Your task to perform on an android device: delete location history Image 0: 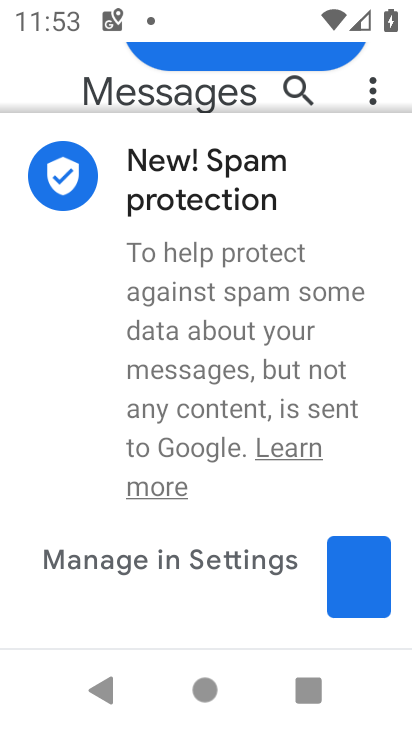
Step 0: press back button
Your task to perform on an android device: delete location history Image 1: 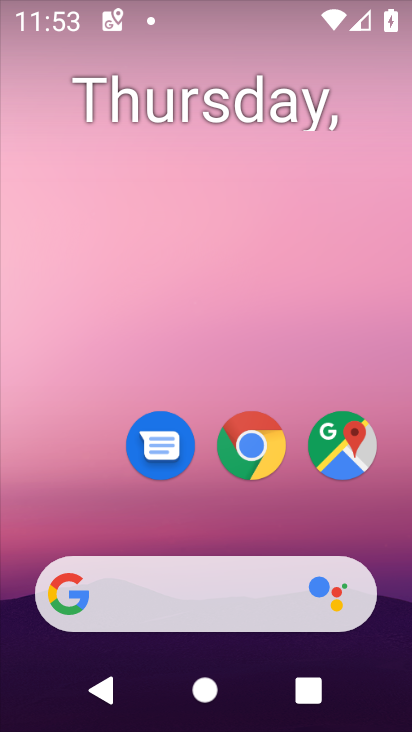
Step 1: drag from (241, 554) to (131, 2)
Your task to perform on an android device: delete location history Image 2: 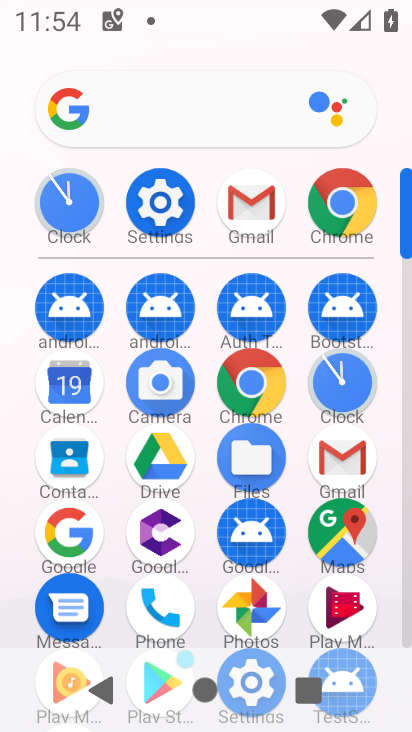
Step 2: click (337, 528)
Your task to perform on an android device: delete location history Image 3: 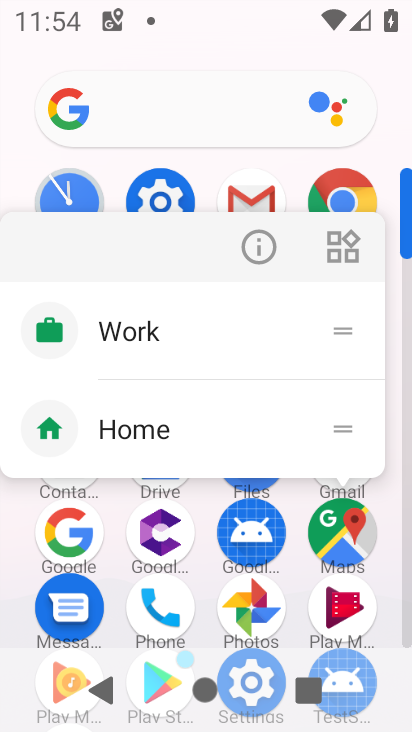
Step 3: click (334, 521)
Your task to perform on an android device: delete location history Image 4: 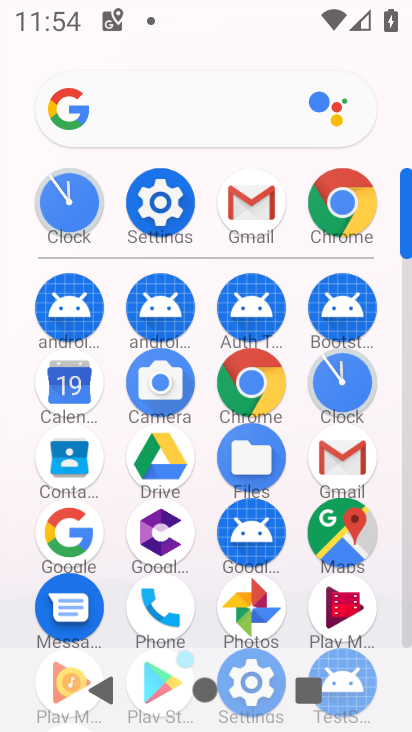
Step 4: click (332, 518)
Your task to perform on an android device: delete location history Image 5: 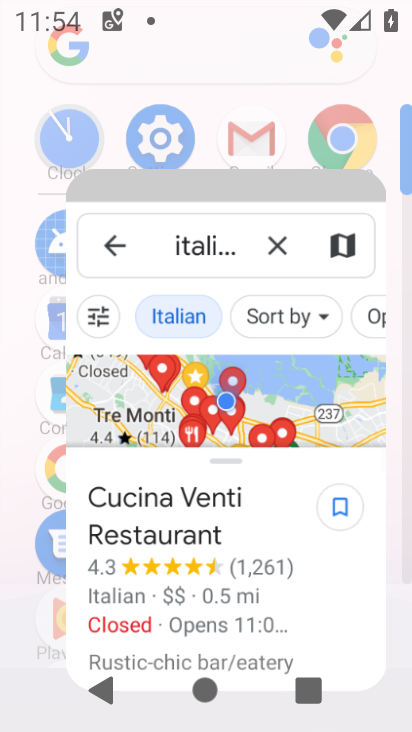
Step 5: click (332, 518)
Your task to perform on an android device: delete location history Image 6: 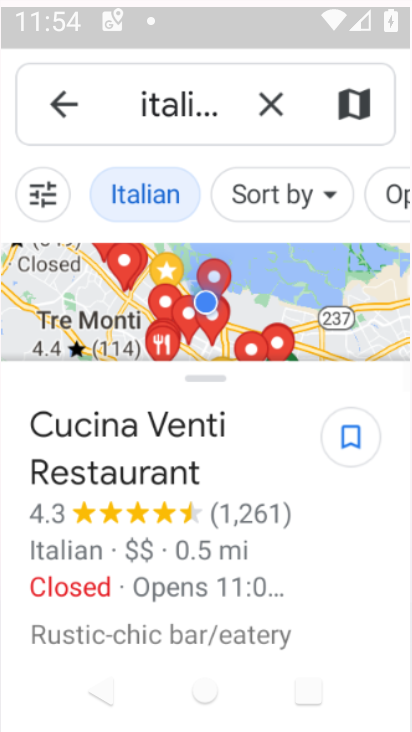
Step 6: click (332, 517)
Your task to perform on an android device: delete location history Image 7: 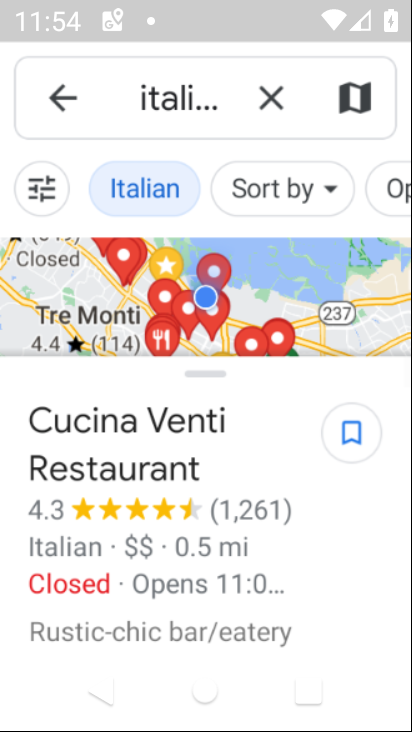
Step 7: click (326, 505)
Your task to perform on an android device: delete location history Image 8: 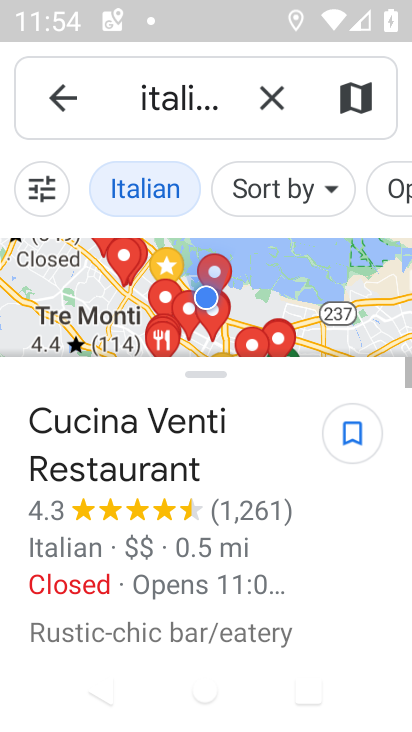
Step 8: click (60, 105)
Your task to perform on an android device: delete location history Image 9: 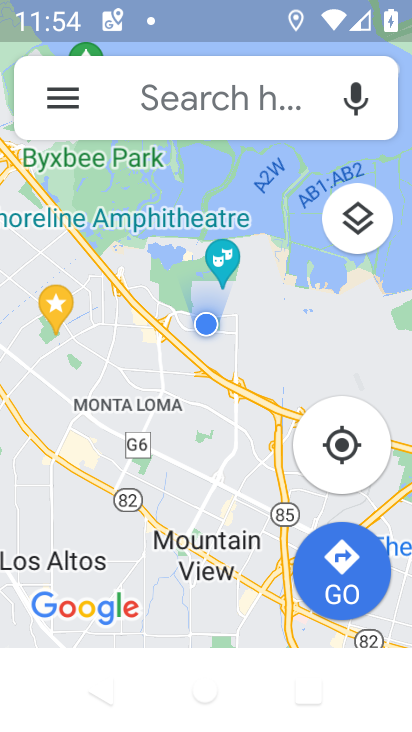
Step 9: click (60, 98)
Your task to perform on an android device: delete location history Image 10: 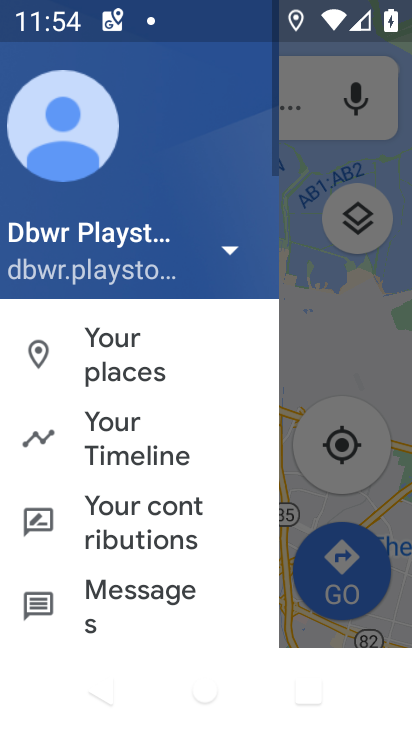
Step 10: click (60, 98)
Your task to perform on an android device: delete location history Image 11: 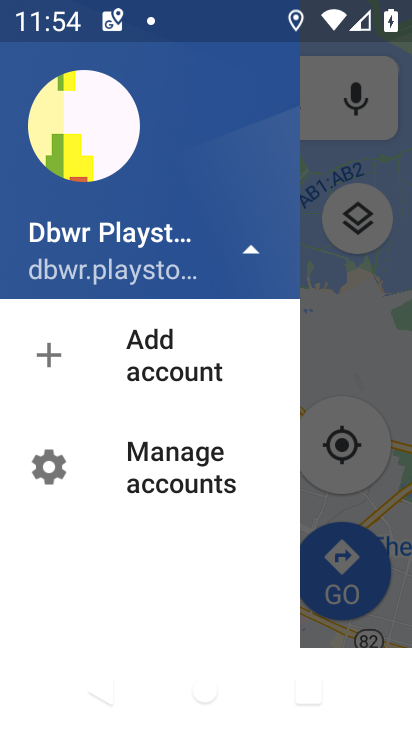
Step 11: click (246, 253)
Your task to perform on an android device: delete location history Image 12: 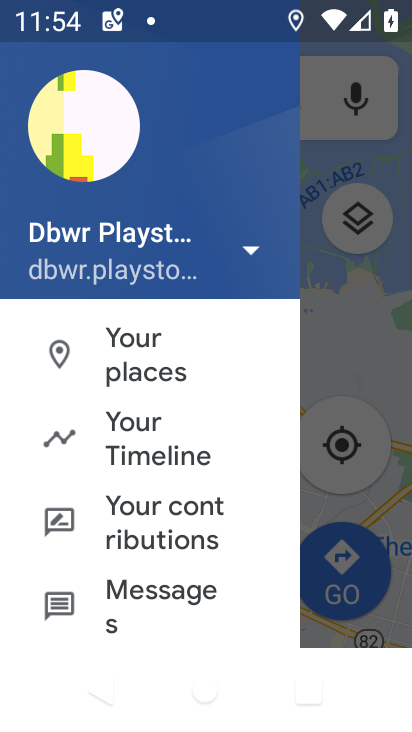
Step 12: click (154, 365)
Your task to perform on an android device: delete location history Image 13: 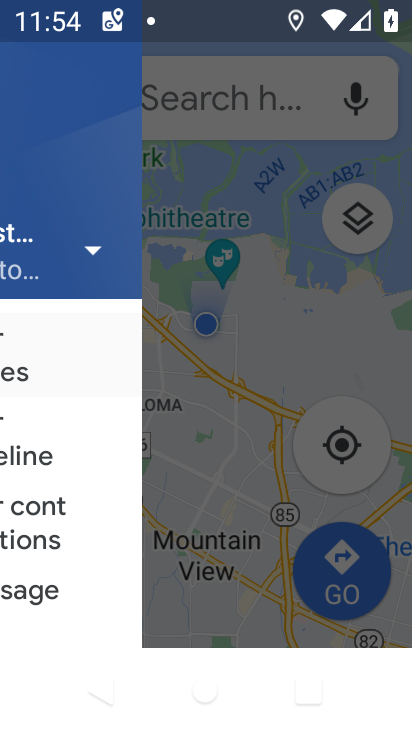
Step 13: click (164, 436)
Your task to perform on an android device: delete location history Image 14: 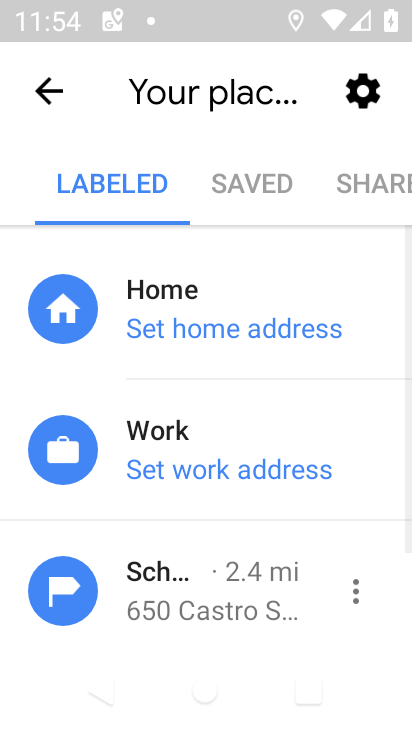
Step 14: click (55, 98)
Your task to perform on an android device: delete location history Image 15: 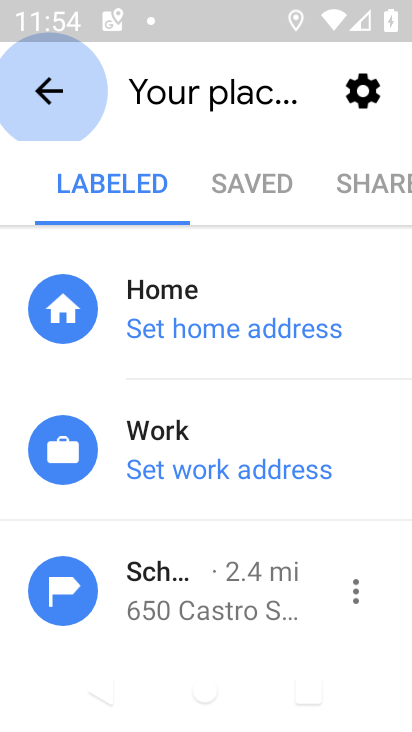
Step 15: click (55, 98)
Your task to perform on an android device: delete location history Image 16: 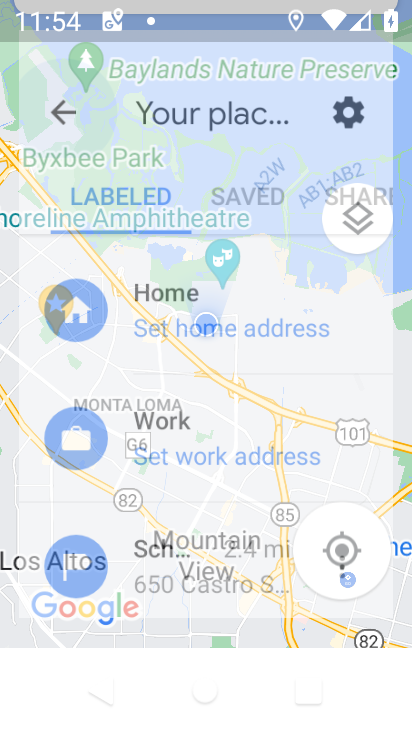
Step 16: click (55, 97)
Your task to perform on an android device: delete location history Image 17: 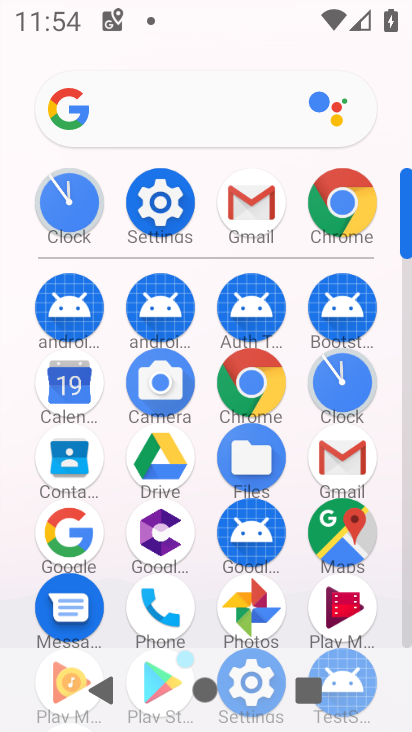
Step 17: click (317, 527)
Your task to perform on an android device: delete location history Image 18: 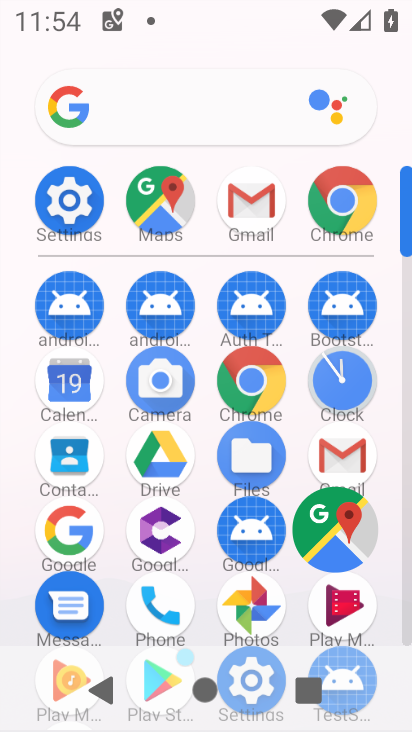
Step 18: click (340, 540)
Your task to perform on an android device: delete location history Image 19: 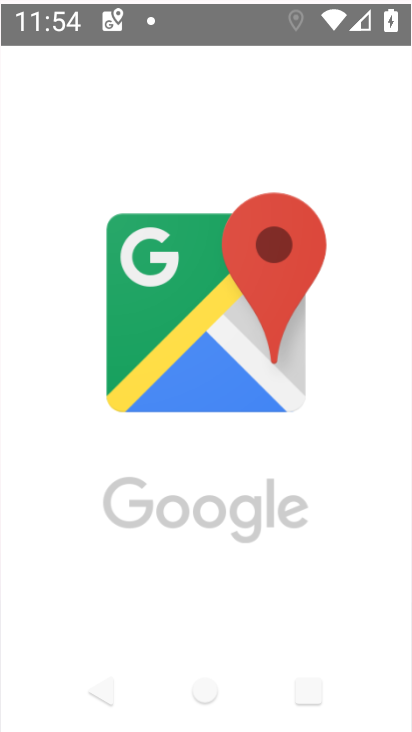
Step 19: click (340, 540)
Your task to perform on an android device: delete location history Image 20: 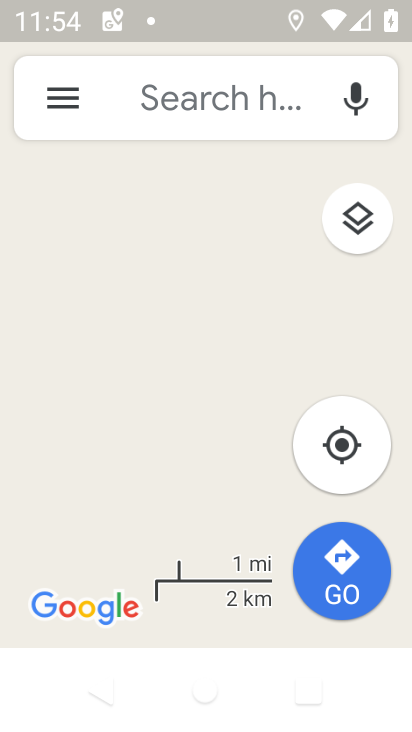
Step 20: click (63, 108)
Your task to perform on an android device: delete location history Image 21: 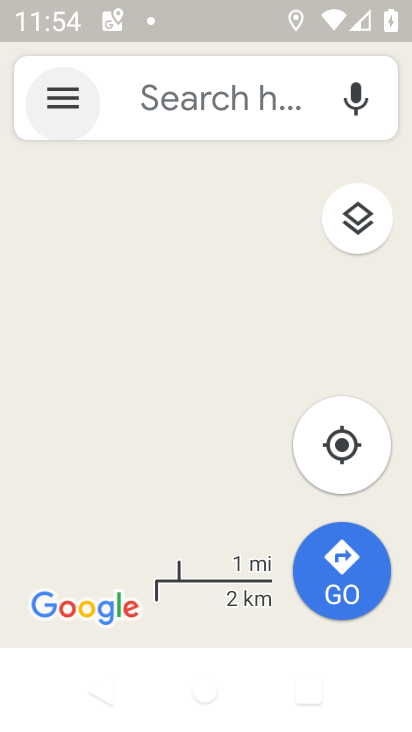
Step 21: click (63, 108)
Your task to perform on an android device: delete location history Image 22: 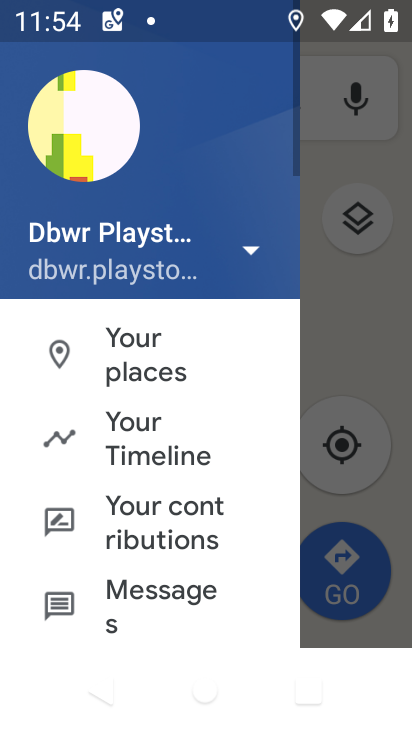
Step 22: click (143, 430)
Your task to perform on an android device: delete location history Image 23: 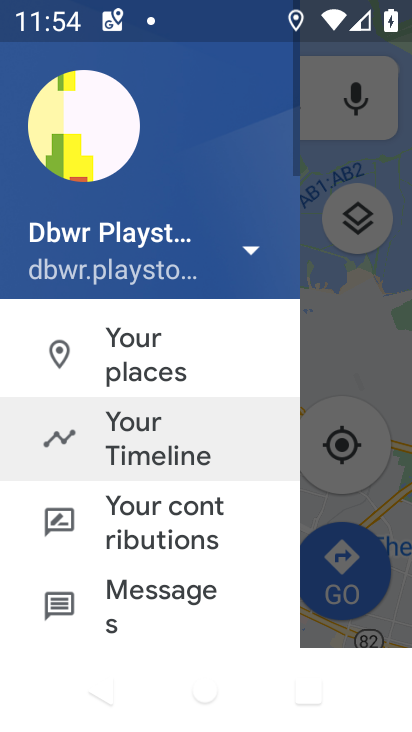
Step 23: click (143, 431)
Your task to perform on an android device: delete location history Image 24: 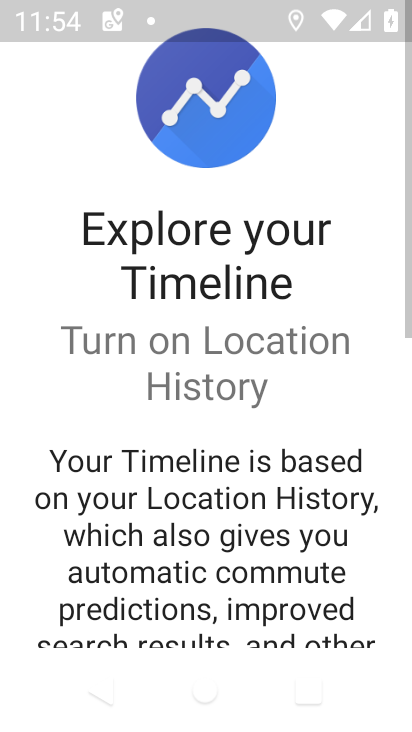
Step 24: drag from (276, 509) to (267, 170)
Your task to perform on an android device: delete location history Image 25: 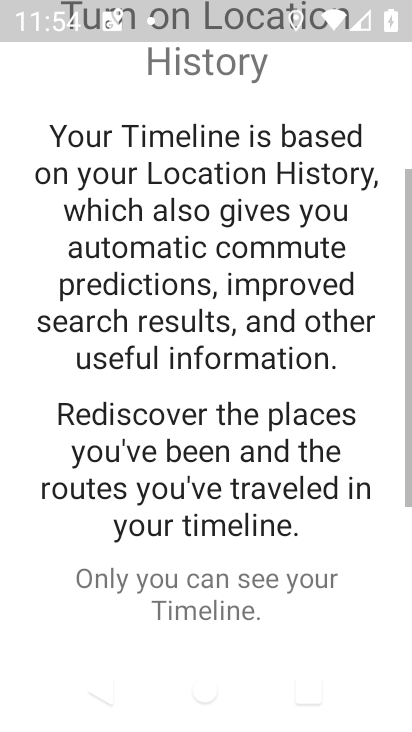
Step 25: drag from (266, 376) to (255, 110)
Your task to perform on an android device: delete location history Image 26: 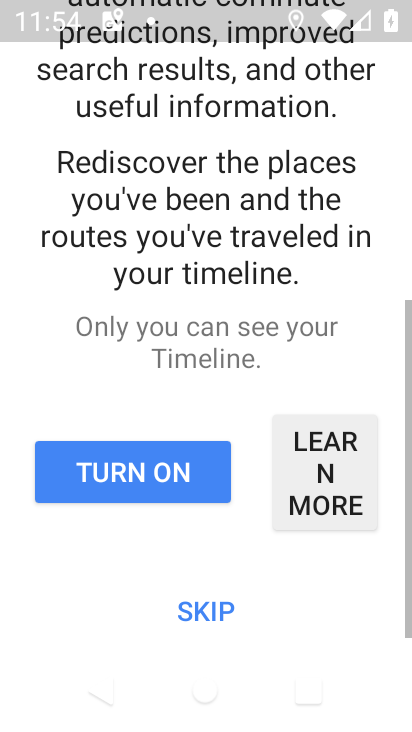
Step 26: drag from (232, 428) to (253, 120)
Your task to perform on an android device: delete location history Image 27: 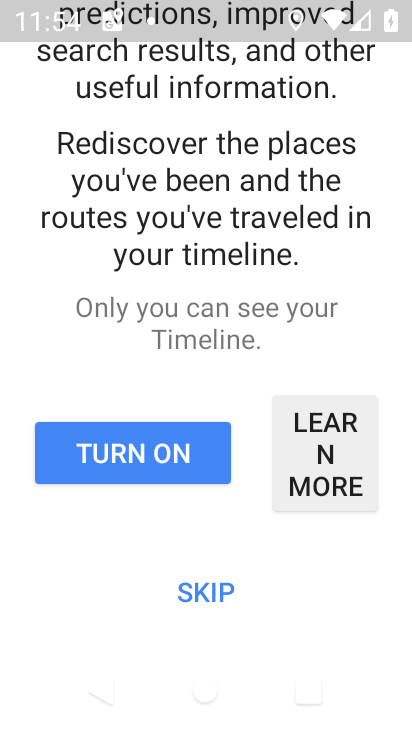
Step 27: click (125, 451)
Your task to perform on an android device: delete location history Image 28: 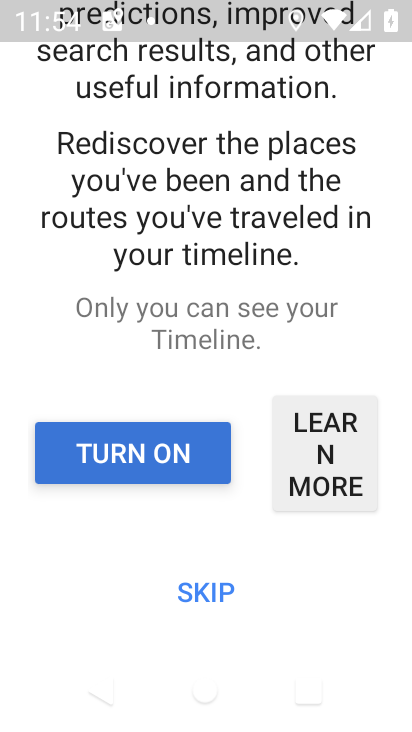
Step 28: click (125, 452)
Your task to perform on an android device: delete location history Image 29: 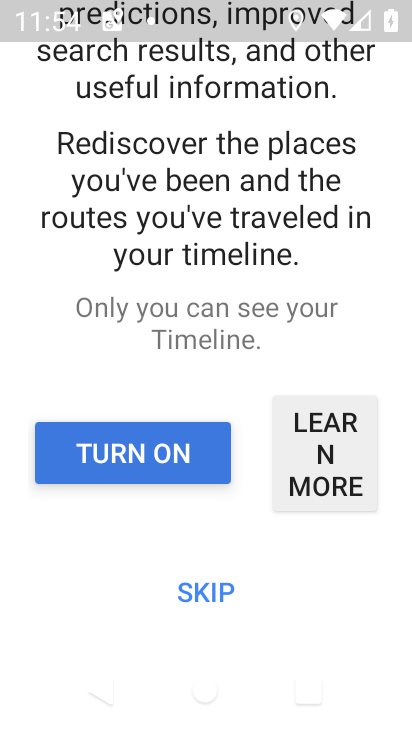
Step 29: click (125, 452)
Your task to perform on an android device: delete location history Image 30: 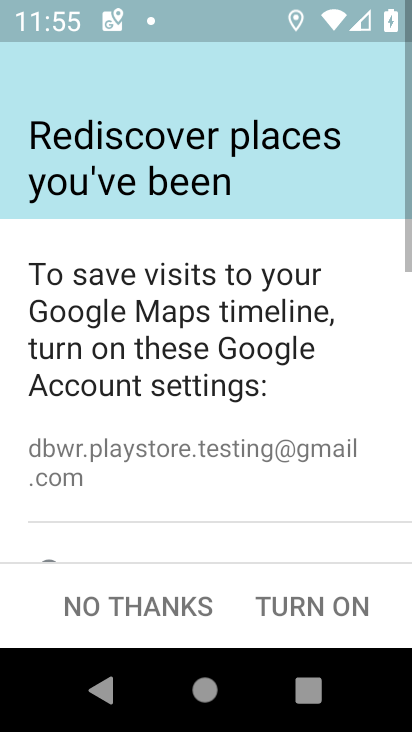
Step 30: click (363, 96)
Your task to perform on an android device: delete location history Image 31: 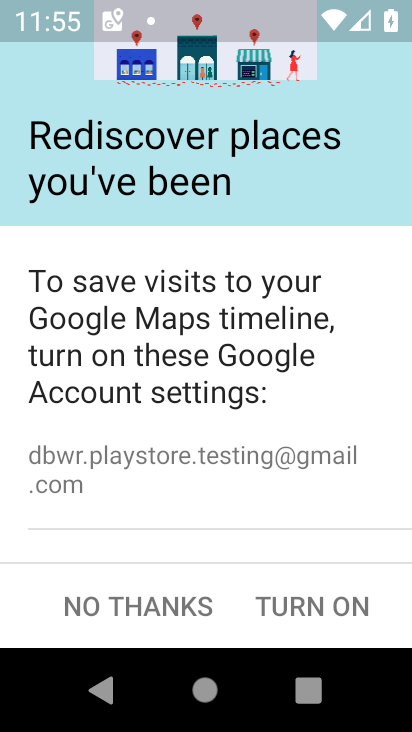
Step 31: click (298, 607)
Your task to perform on an android device: delete location history Image 32: 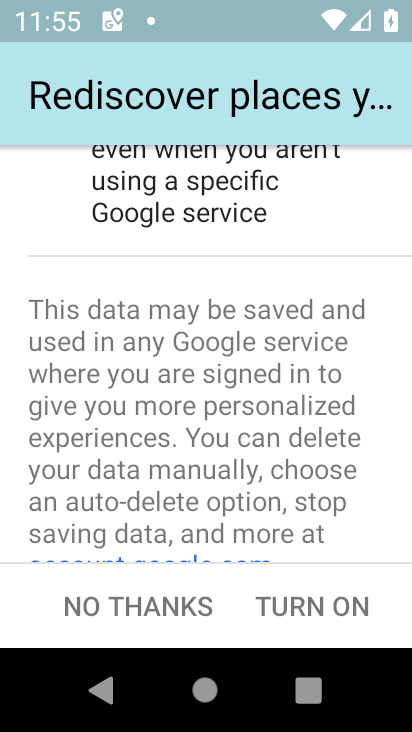
Step 32: drag from (190, 427) to (142, 142)
Your task to perform on an android device: delete location history Image 33: 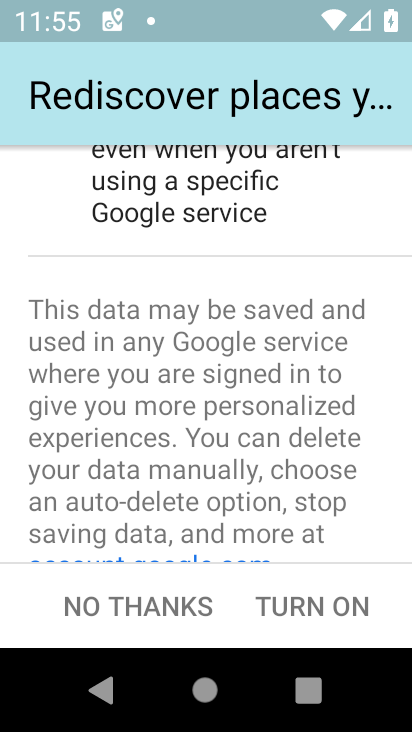
Step 33: drag from (202, 363) to (202, 116)
Your task to perform on an android device: delete location history Image 34: 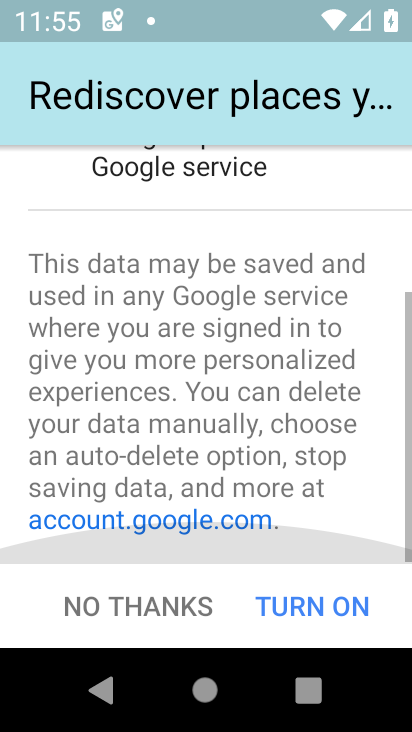
Step 34: drag from (194, 313) to (209, 89)
Your task to perform on an android device: delete location history Image 35: 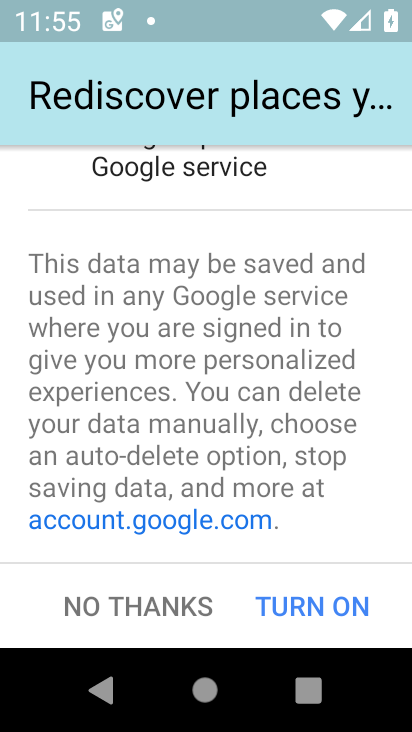
Step 35: click (125, 605)
Your task to perform on an android device: delete location history Image 36: 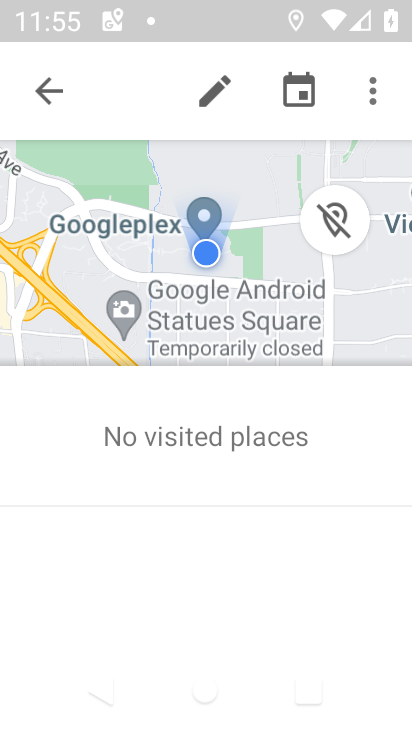
Step 36: drag from (372, 97) to (165, 608)
Your task to perform on an android device: delete location history Image 37: 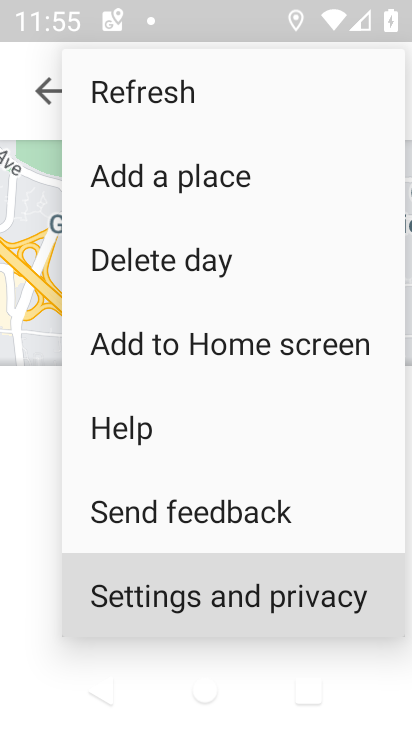
Step 37: click (170, 603)
Your task to perform on an android device: delete location history Image 38: 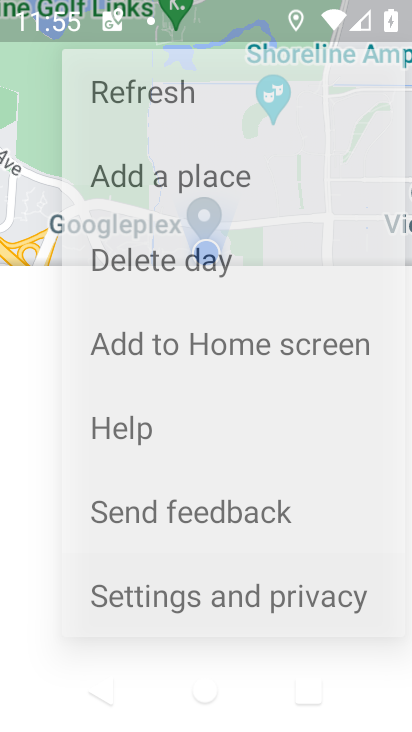
Step 38: click (171, 602)
Your task to perform on an android device: delete location history Image 39: 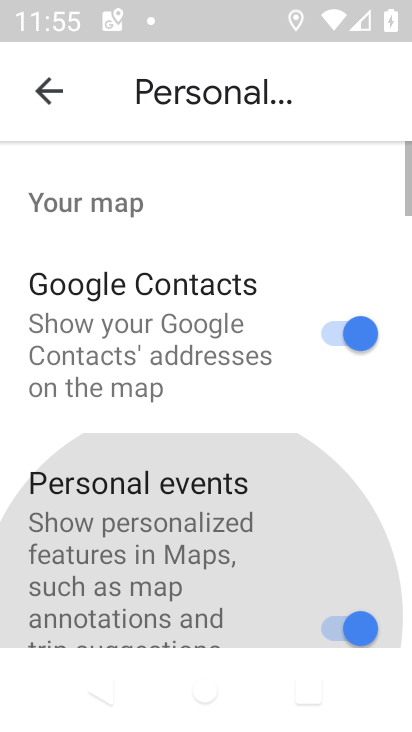
Step 39: click (170, 599)
Your task to perform on an android device: delete location history Image 40: 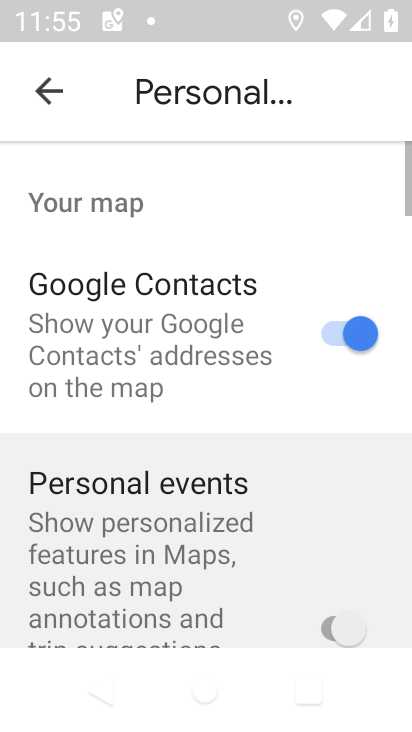
Step 40: click (168, 598)
Your task to perform on an android device: delete location history Image 41: 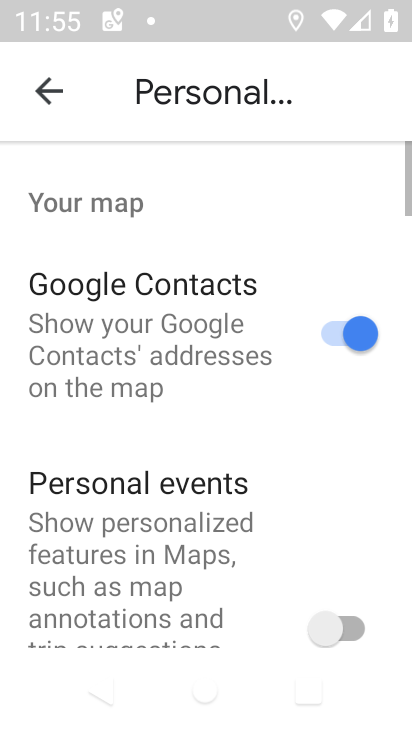
Step 41: click (354, 624)
Your task to perform on an android device: delete location history Image 42: 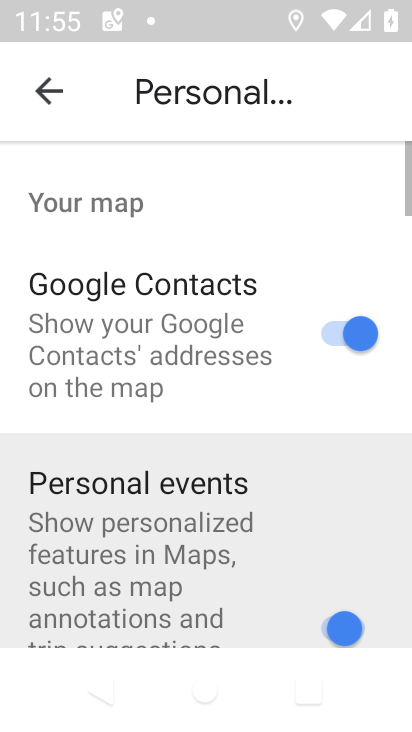
Step 42: drag from (179, 521) to (185, 192)
Your task to perform on an android device: delete location history Image 43: 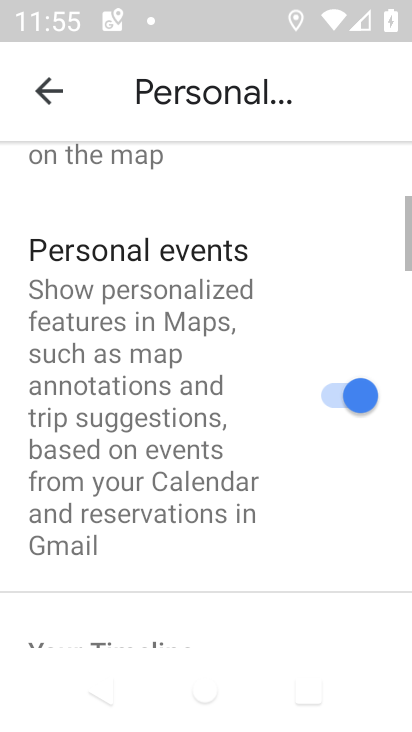
Step 43: drag from (190, 389) to (190, 202)
Your task to perform on an android device: delete location history Image 44: 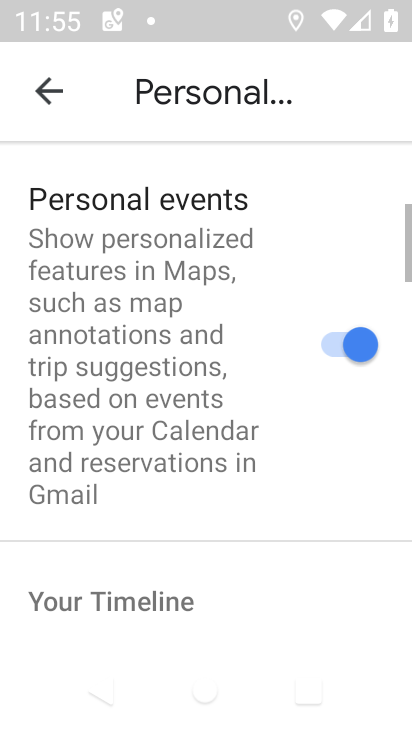
Step 44: click (194, 192)
Your task to perform on an android device: delete location history Image 45: 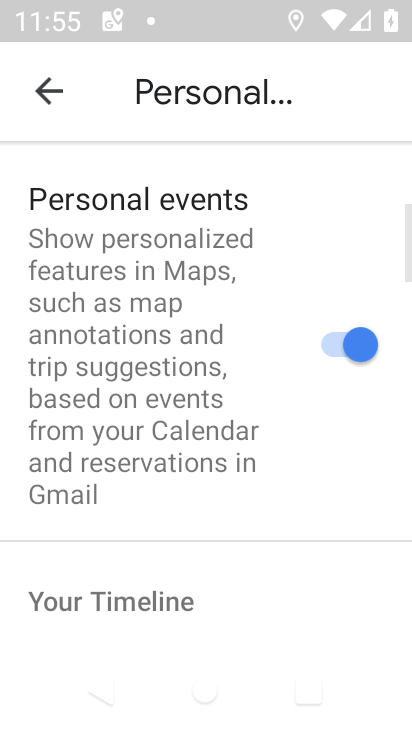
Step 45: drag from (190, 490) to (196, 226)
Your task to perform on an android device: delete location history Image 46: 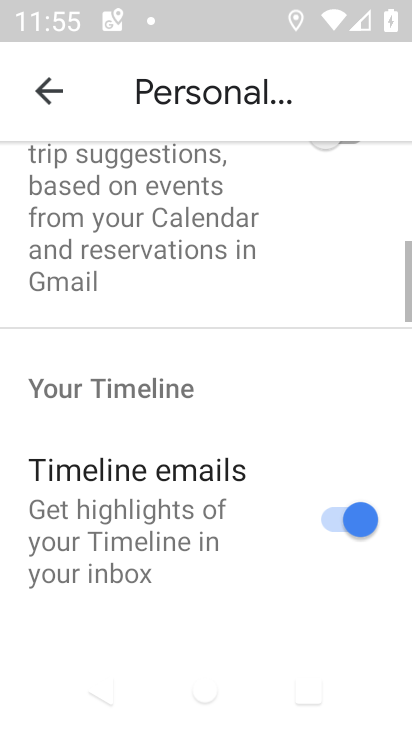
Step 46: drag from (186, 535) to (186, 324)
Your task to perform on an android device: delete location history Image 47: 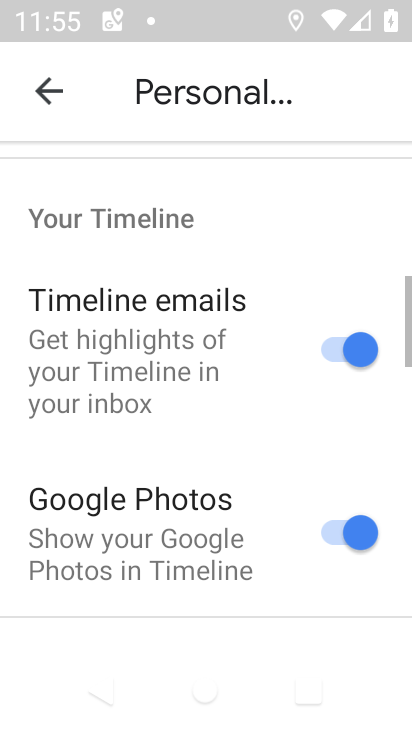
Step 47: drag from (160, 445) to (179, 302)
Your task to perform on an android device: delete location history Image 48: 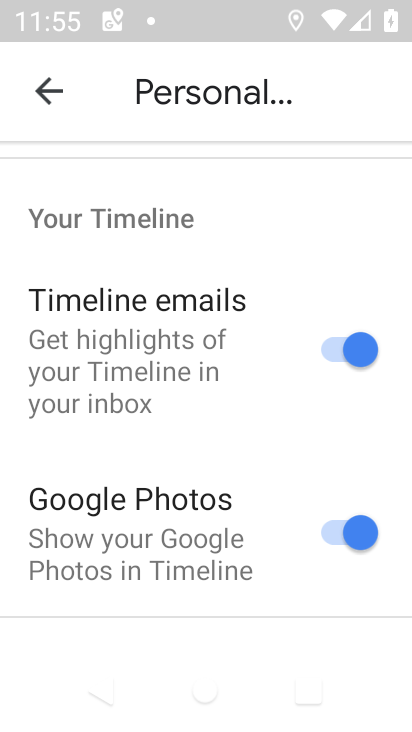
Step 48: drag from (205, 361) to (205, 232)
Your task to perform on an android device: delete location history Image 49: 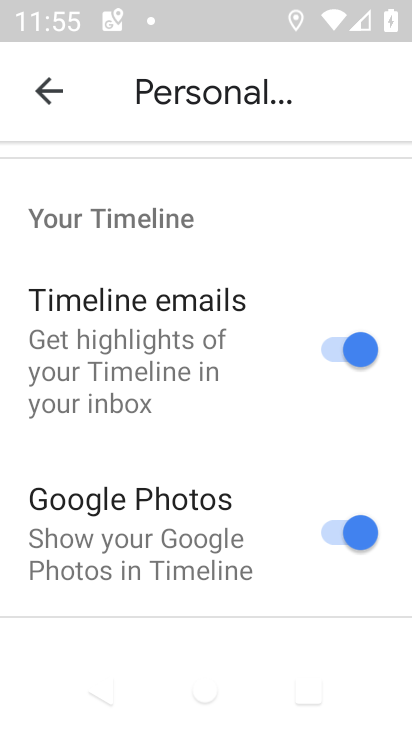
Step 49: drag from (179, 478) to (184, 233)
Your task to perform on an android device: delete location history Image 50: 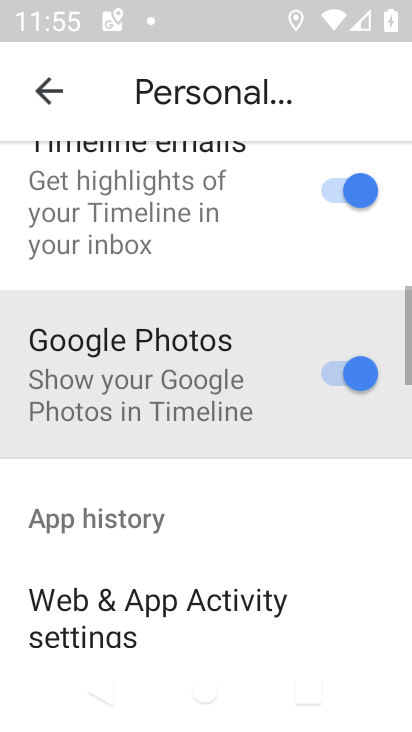
Step 50: drag from (158, 427) to (171, 116)
Your task to perform on an android device: delete location history Image 51: 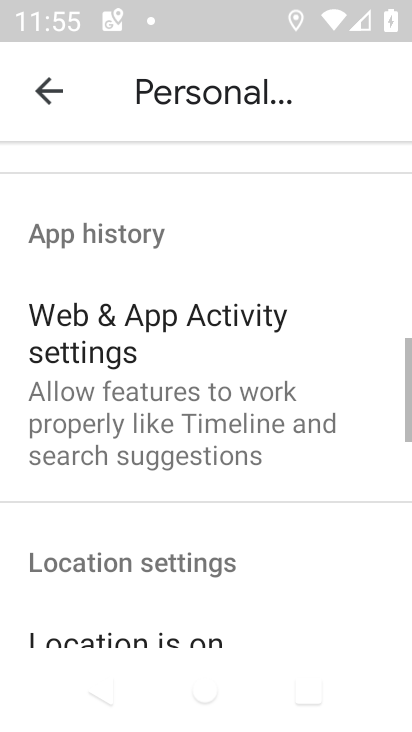
Step 51: drag from (159, 385) to (195, 141)
Your task to perform on an android device: delete location history Image 52: 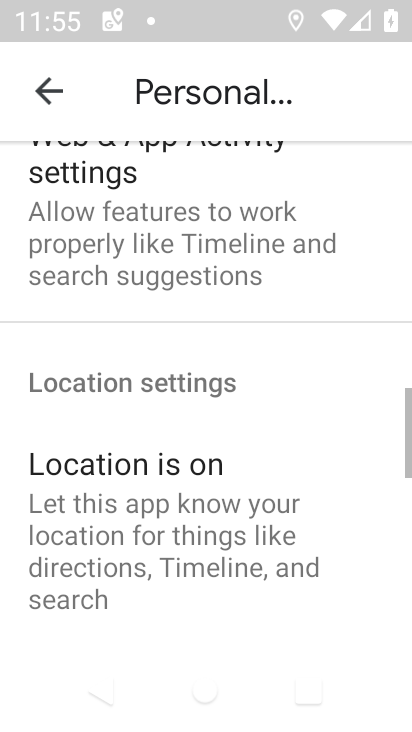
Step 52: drag from (191, 513) to (191, 154)
Your task to perform on an android device: delete location history Image 53: 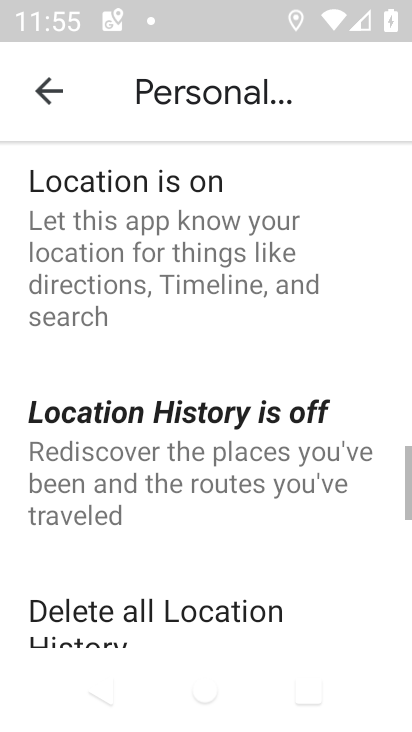
Step 53: drag from (205, 439) to (205, 177)
Your task to perform on an android device: delete location history Image 54: 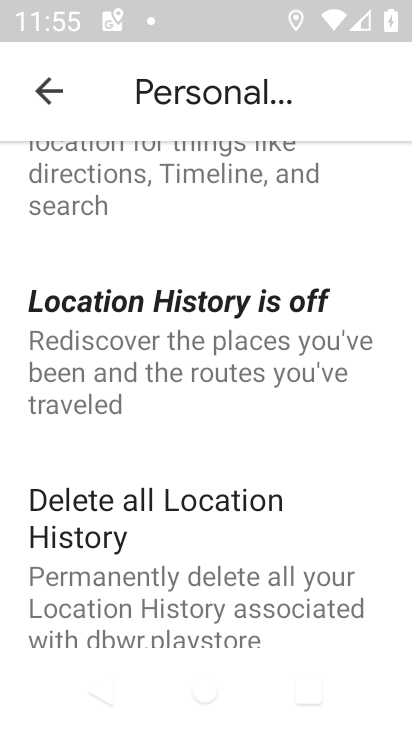
Step 54: click (213, 555)
Your task to perform on an android device: delete location history Image 55: 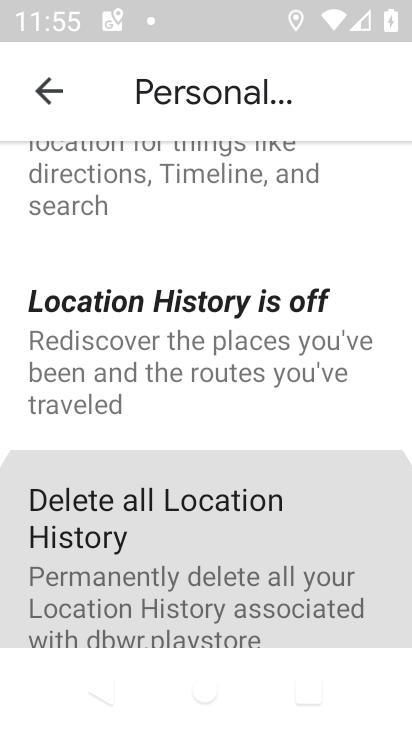
Step 55: click (210, 555)
Your task to perform on an android device: delete location history Image 56: 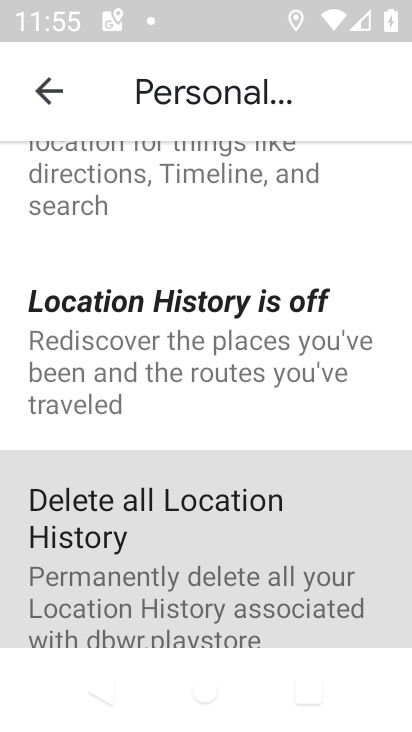
Step 56: click (210, 555)
Your task to perform on an android device: delete location history Image 57: 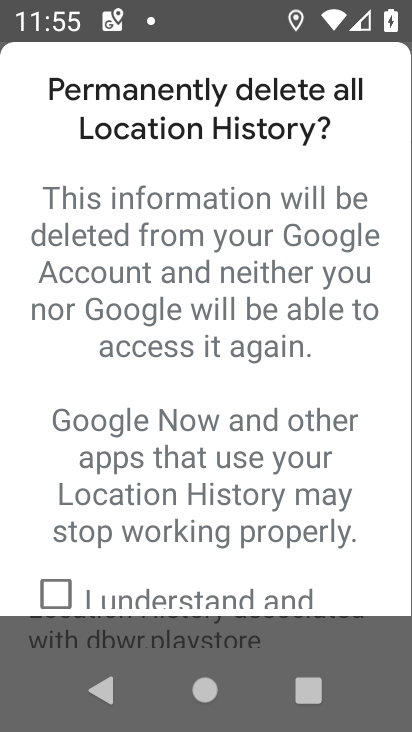
Step 57: click (57, 595)
Your task to perform on an android device: delete location history Image 58: 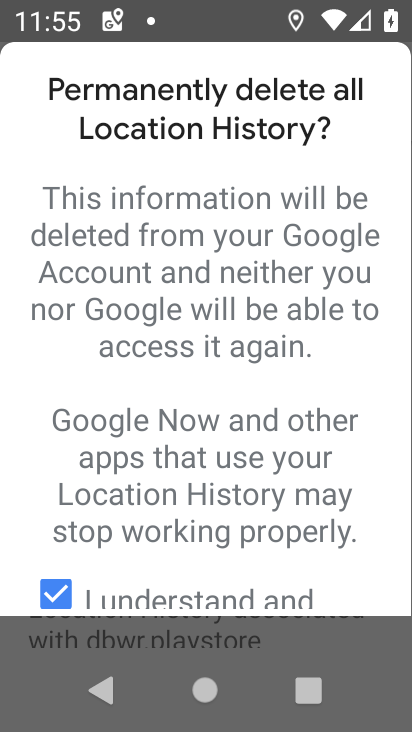
Step 58: task complete